Your task to perform on an android device: open app "Pandora - Music & Podcasts" (install if not already installed) and go to login screen Image 0: 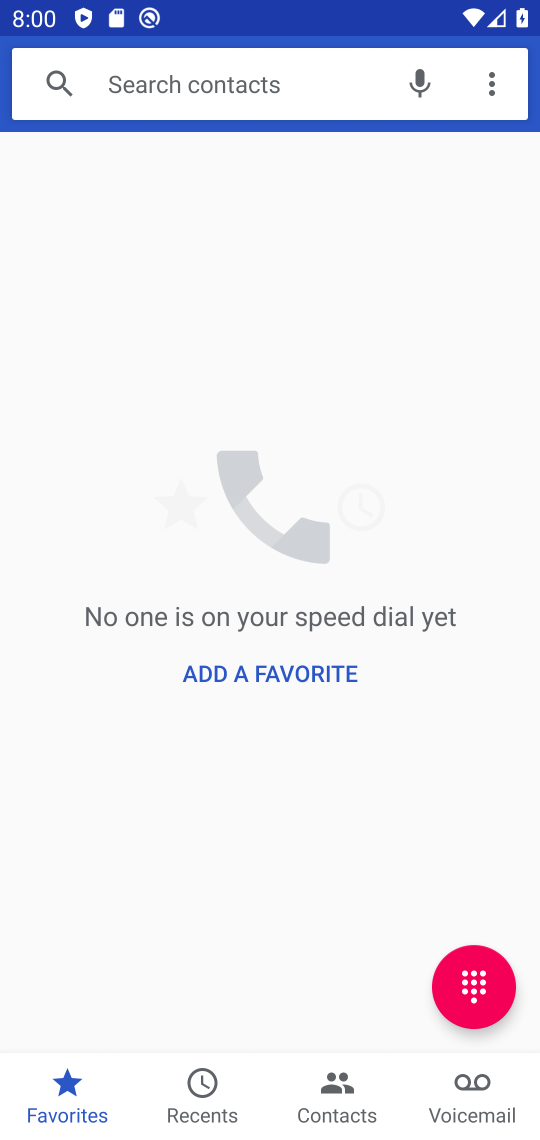
Step 0: press home button
Your task to perform on an android device: open app "Pandora - Music & Podcasts" (install if not already installed) and go to login screen Image 1: 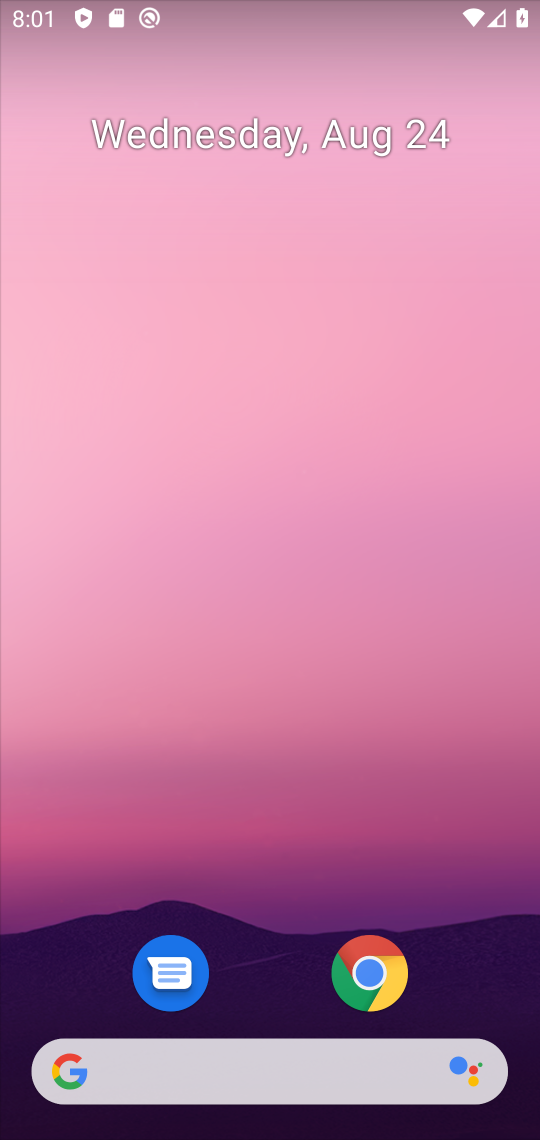
Step 1: drag from (244, 925) to (337, 79)
Your task to perform on an android device: open app "Pandora - Music & Podcasts" (install if not already installed) and go to login screen Image 2: 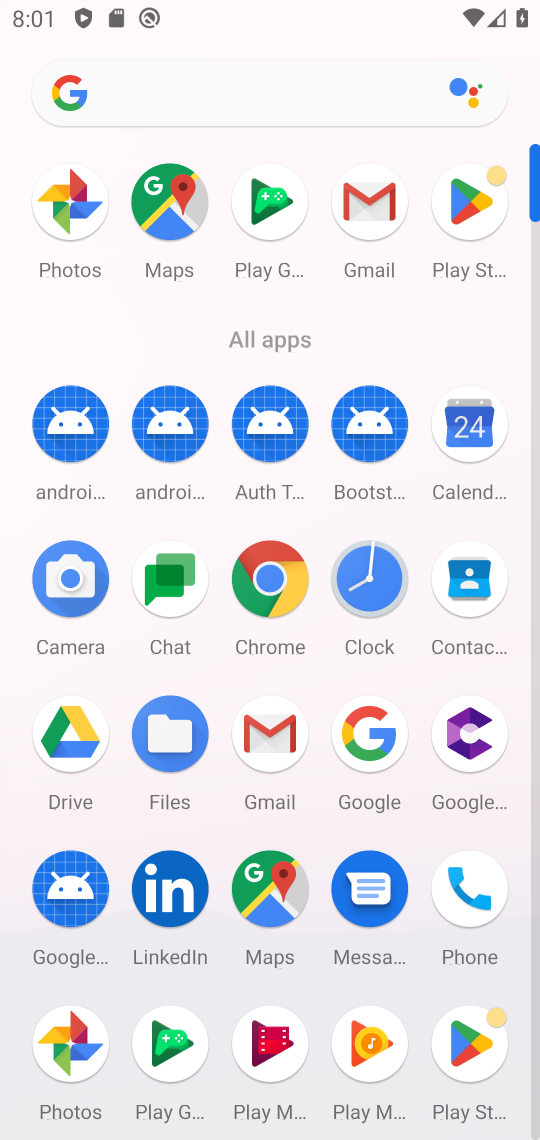
Step 2: click (462, 201)
Your task to perform on an android device: open app "Pandora - Music & Podcasts" (install if not already installed) and go to login screen Image 3: 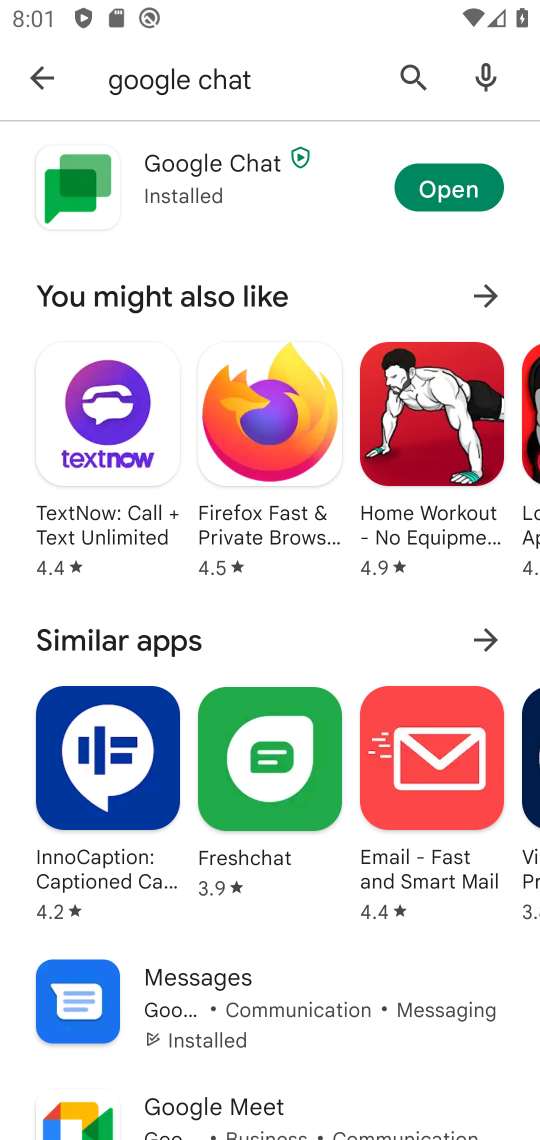
Step 3: click (40, 74)
Your task to perform on an android device: open app "Pandora - Music & Podcasts" (install if not already installed) and go to login screen Image 4: 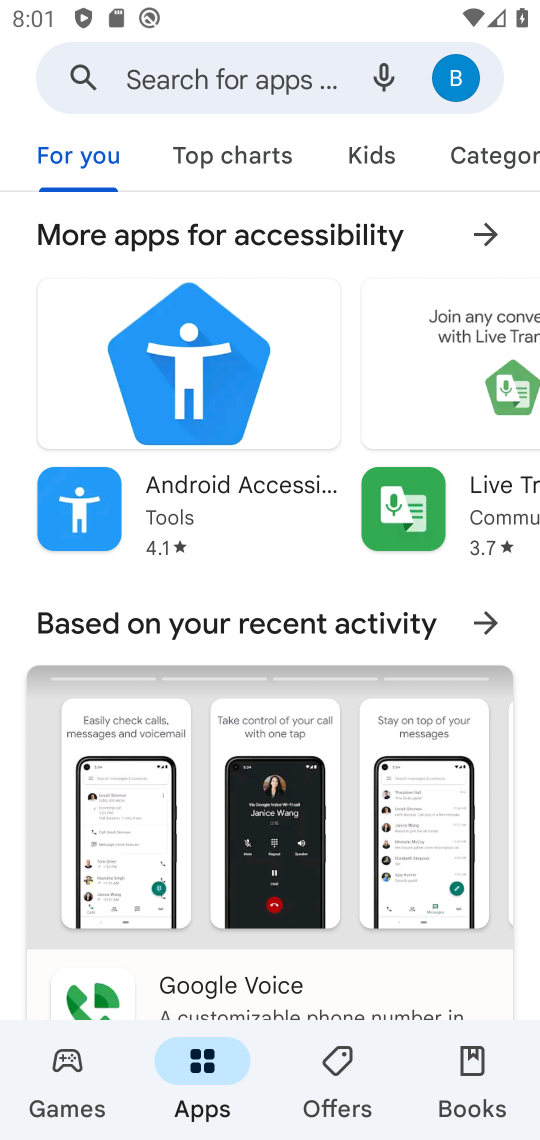
Step 4: click (149, 74)
Your task to perform on an android device: open app "Pandora - Music & Podcasts" (install if not already installed) and go to login screen Image 5: 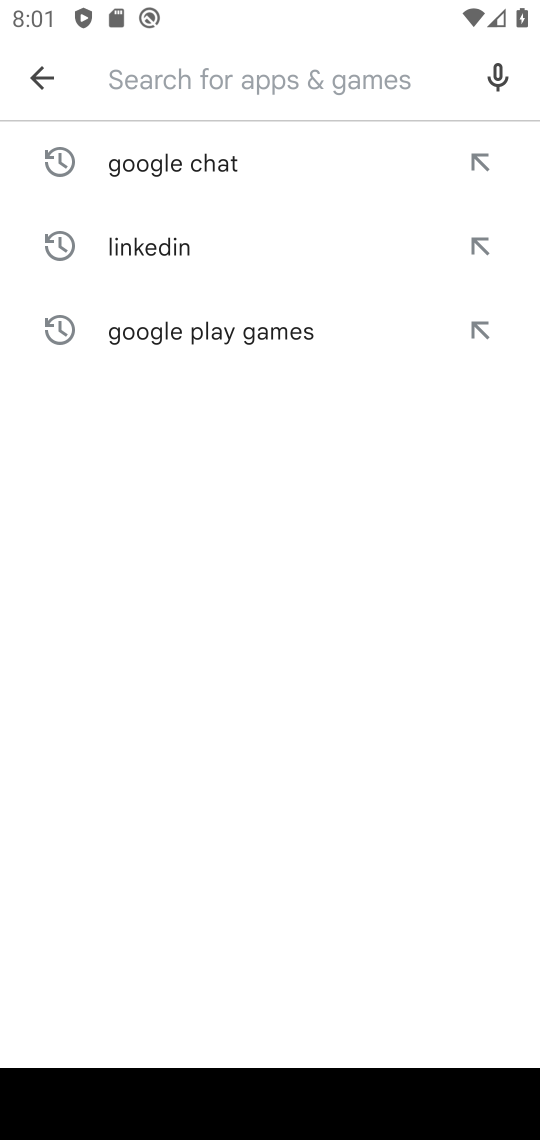
Step 5: type "Pandora"
Your task to perform on an android device: open app "Pandora - Music & Podcasts" (install if not already installed) and go to login screen Image 6: 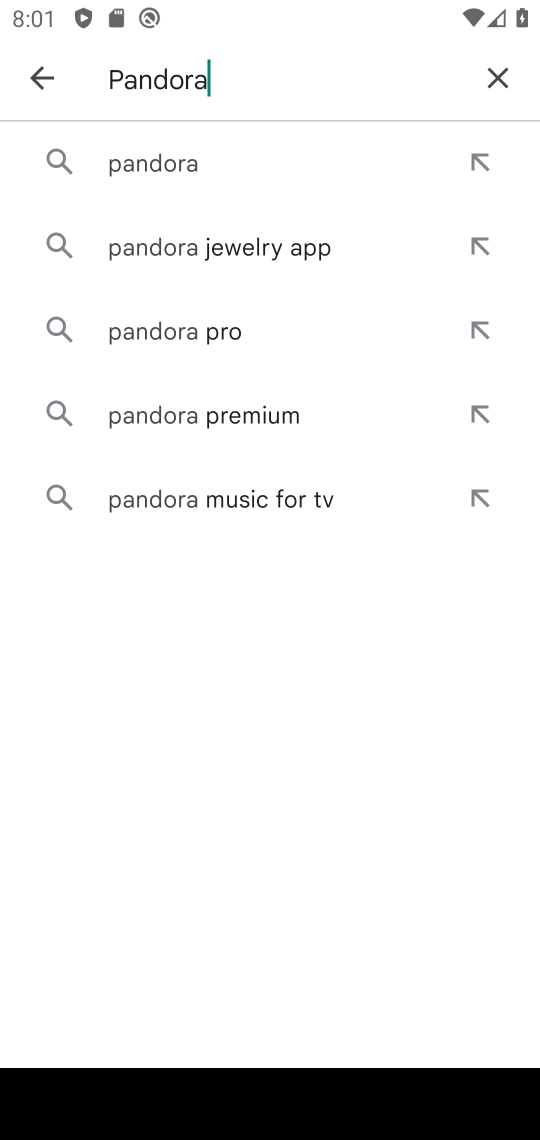
Step 6: click (171, 164)
Your task to perform on an android device: open app "Pandora - Music & Podcasts" (install if not already installed) and go to login screen Image 7: 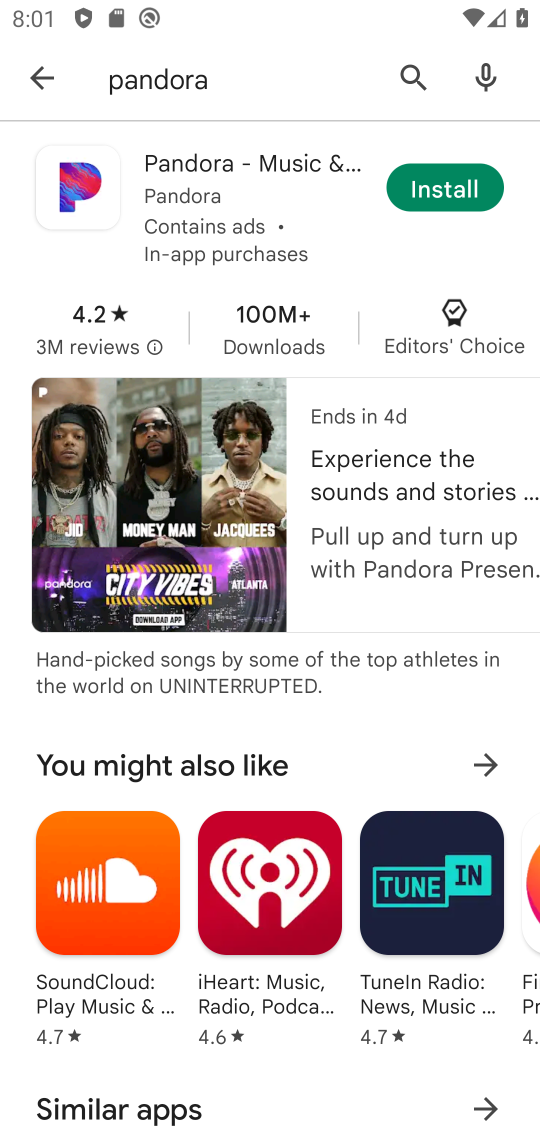
Step 7: click (443, 187)
Your task to perform on an android device: open app "Pandora - Music & Podcasts" (install if not already installed) and go to login screen Image 8: 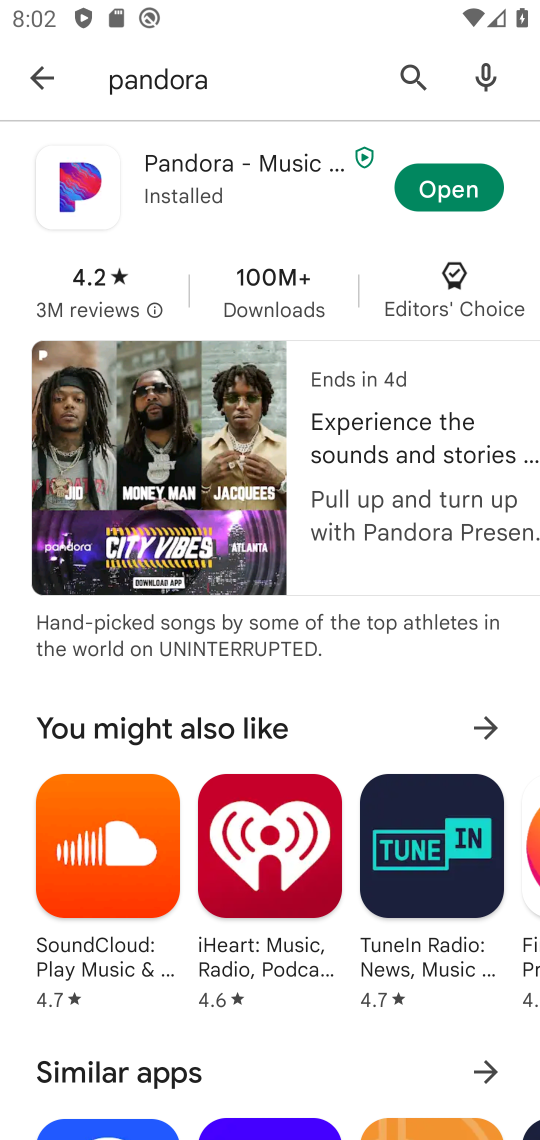
Step 8: click (443, 187)
Your task to perform on an android device: open app "Pandora - Music & Podcasts" (install if not already installed) and go to login screen Image 9: 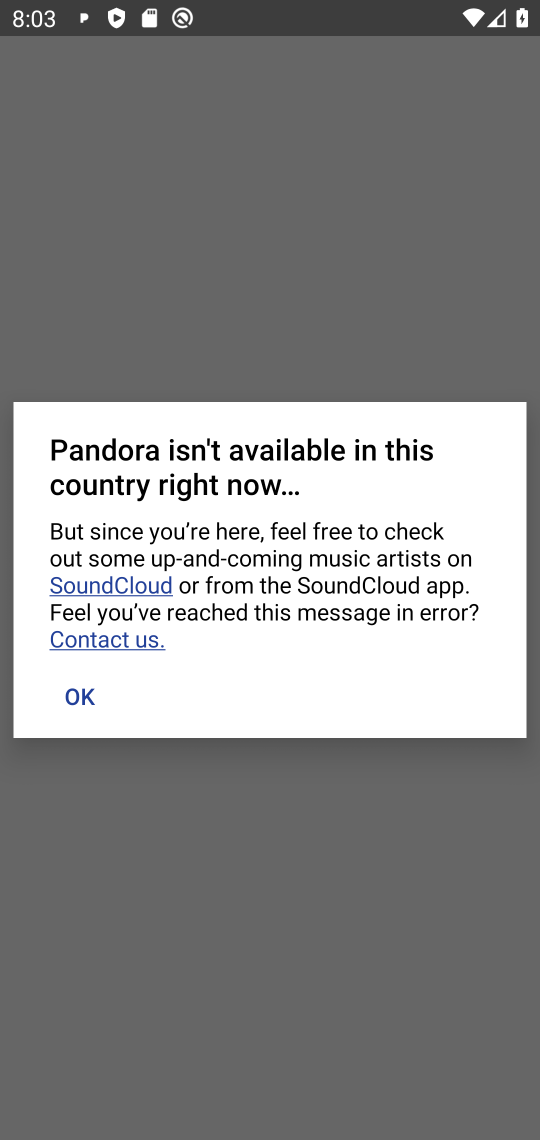
Step 9: click (91, 687)
Your task to perform on an android device: open app "Pandora - Music & Podcasts" (install if not already installed) and go to login screen Image 10: 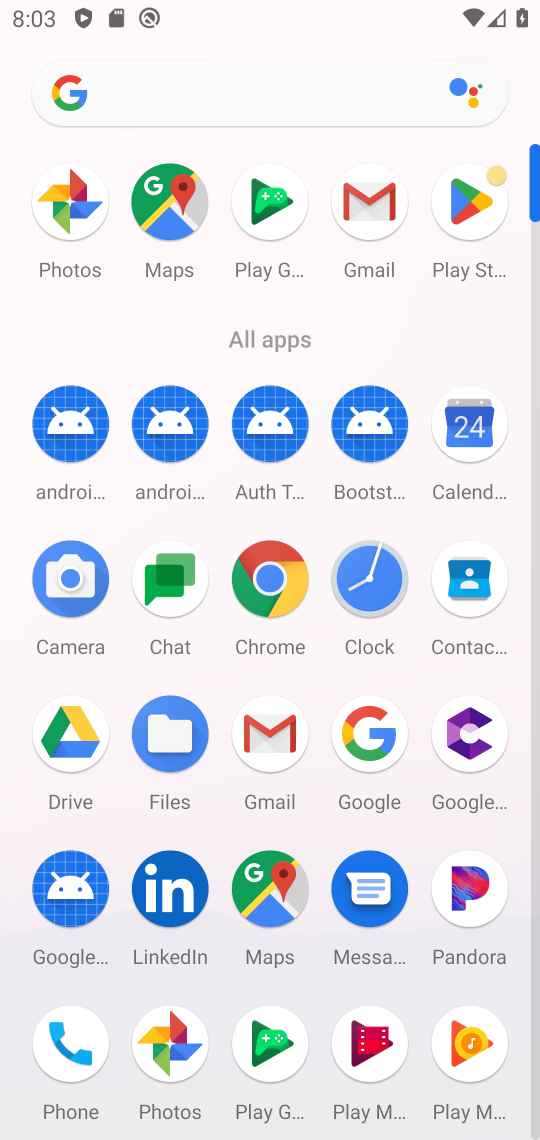
Step 10: task complete